Your task to perform on an android device: delete browsing data in the chrome app Image 0: 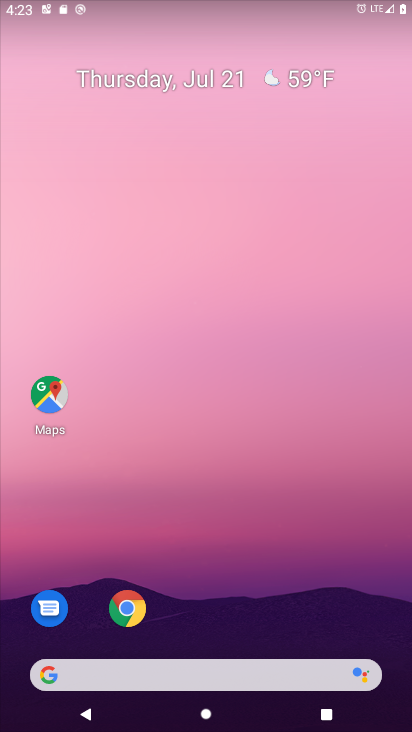
Step 0: drag from (191, 663) to (294, 89)
Your task to perform on an android device: delete browsing data in the chrome app Image 1: 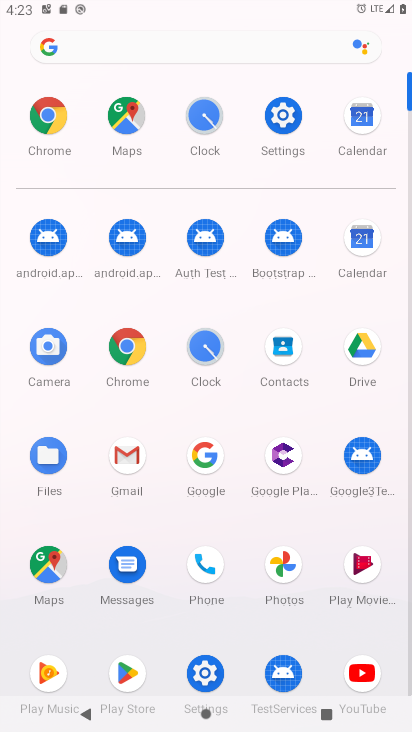
Step 1: click (132, 353)
Your task to perform on an android device: delete browsing data in the chrome app Image 2: 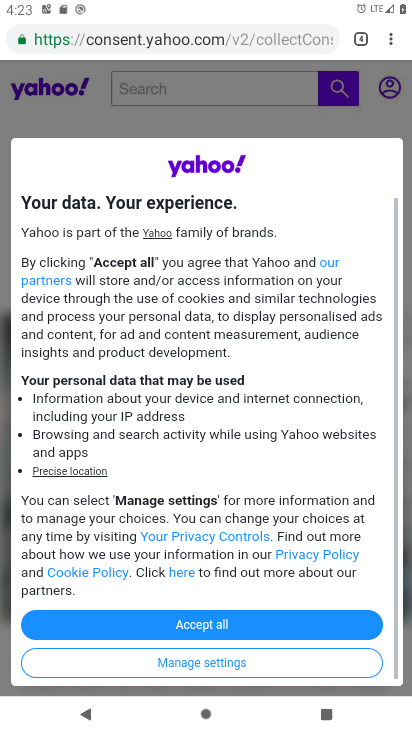
Step 2: drag from (394, 39) to (280, 475)
Your task to perform on an android device: delete browsing data in the chrome app Image 3: 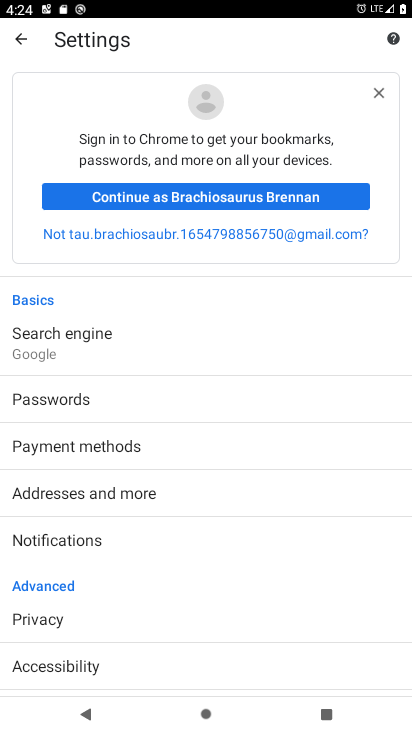
Step 3: click (80, 637)
Your task to perform on an android device: delete browsing data in the chrome app Image 4: 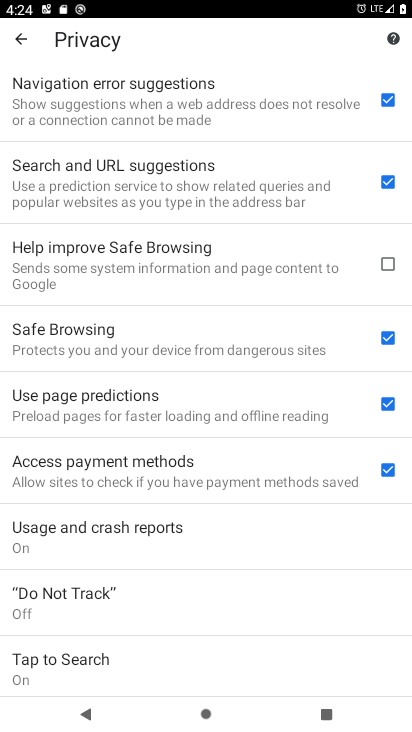
Step 4: drag from (156, 609) to (154, 81)
Your task to perform on an android device: delete browsing data in the chrome app Image 5: 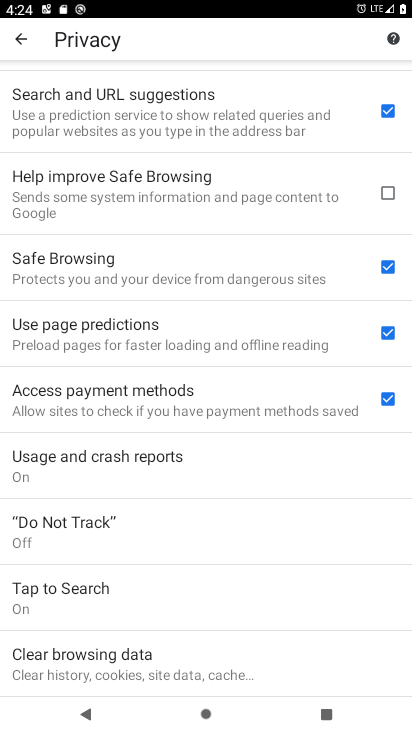
Step 5: click (115, 672)
Your task to perform on an android device: delete browsing data in the chrome app Image 6: 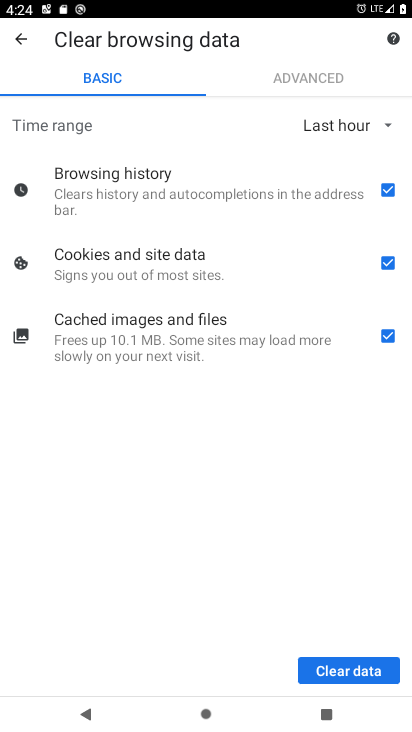
Step 6: click (349, 668)
Your task to perform on an android device: delete browsing data in the chrome app Image 7: 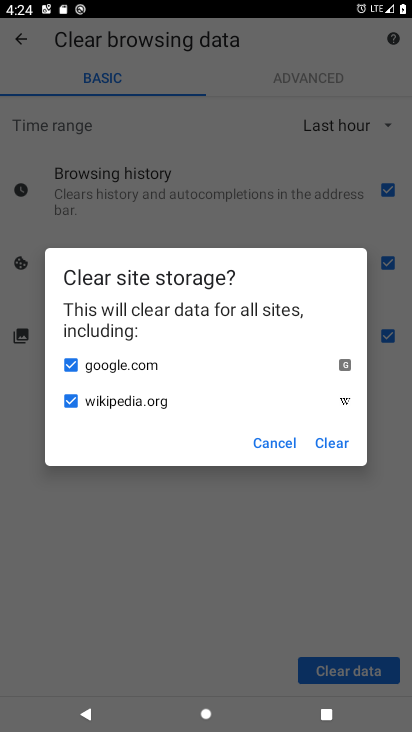
Step 7: click (332, 446)
Your task to perform on an android device: delete browsing data in the chrome app Image 8: 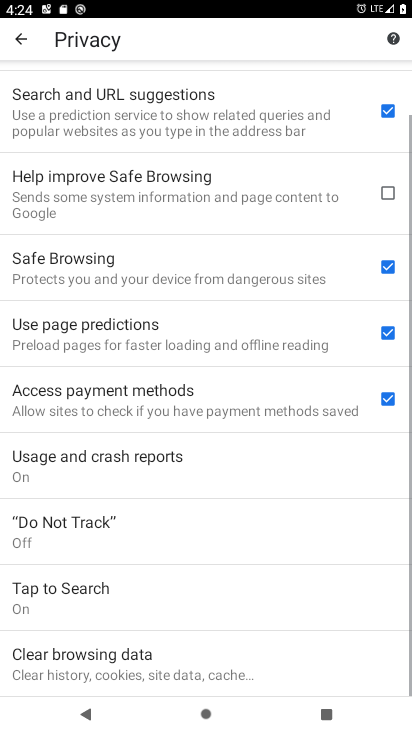
Step 8: task complete